Your task to perform on an android device: Go to Yahoo.com Image 0: 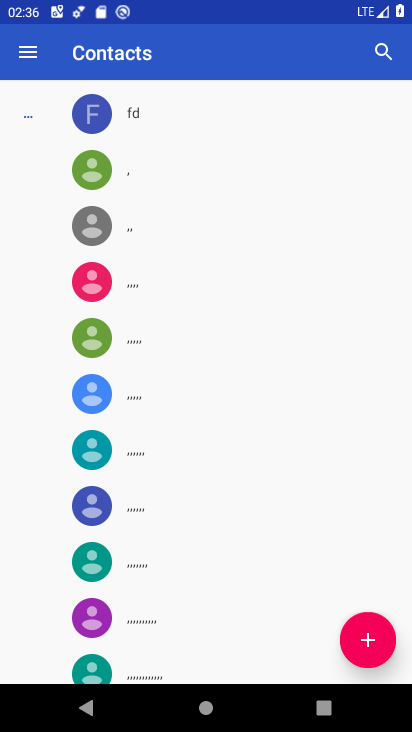
Step 0: press home button
Your task to perform on an android device: Go to Yahoo.com Image 1: 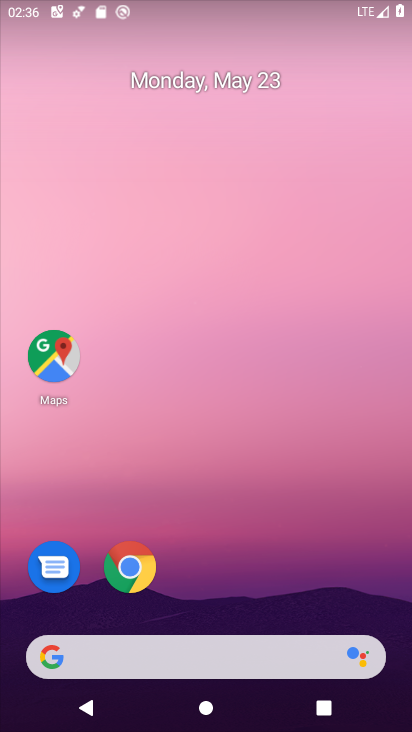
Step 1: drag from (192, 558) to (219, 230)
Your task to perform on an android device: Go to Yahoo.com Image 2: 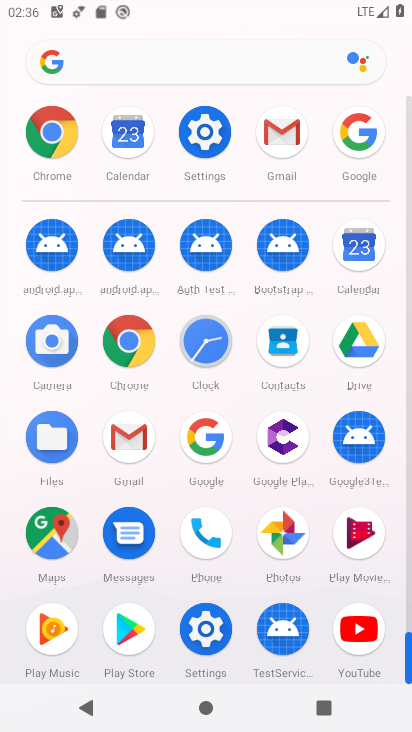
Step 2: click (143, 353)
Your task to perform on an android device: Go to Yahoo.com Image 3: 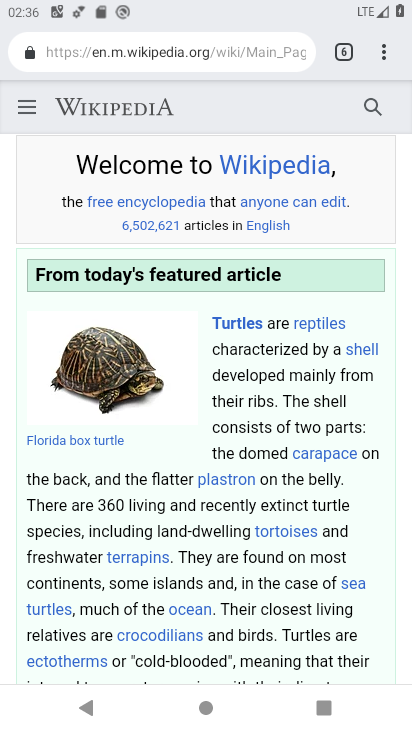
Step 3: click (338, 59)
Your task to perform on an android device: Go to Yahoo.com Image 4: 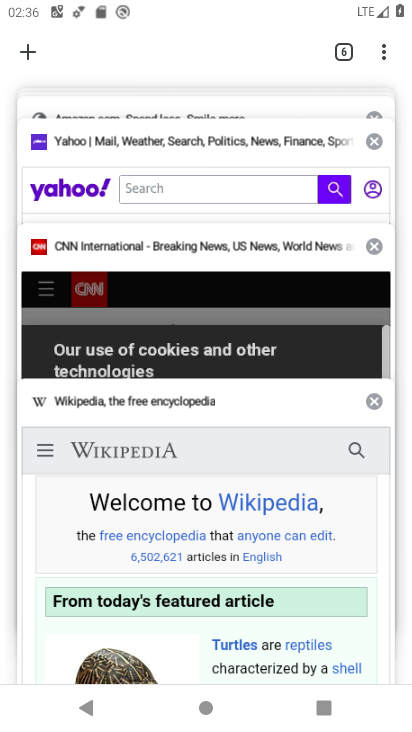
Step 4: click (27, 55)
Your task to perform on an android device: Go to Yahoo.com Image 5: 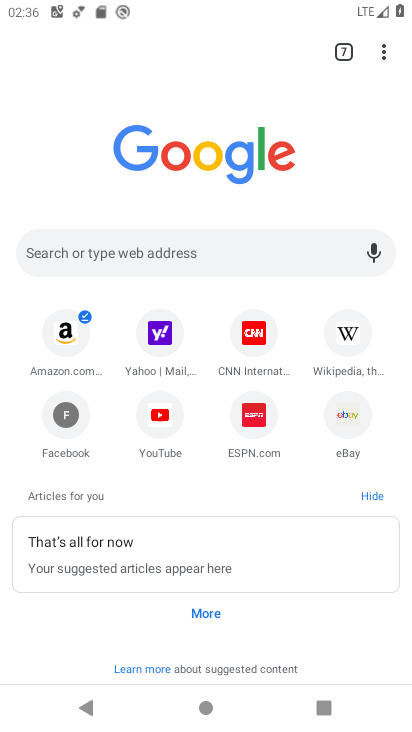
Step 5: click (169, 336)
Your task to perform on an android device: Go to Yahoo.com Image 6: 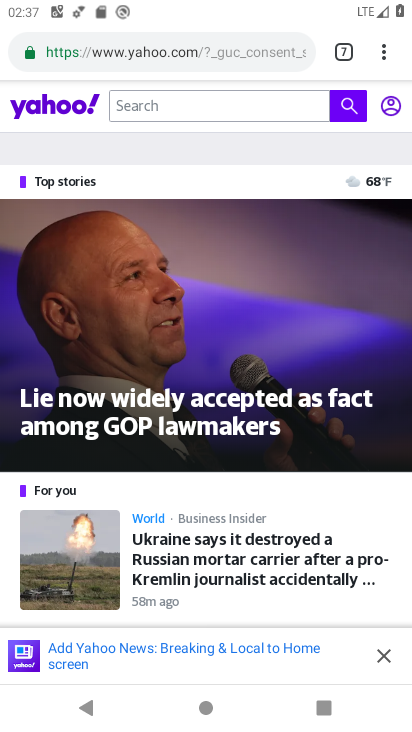
Step 6: task complete